Your task to perform on an android device: Do I have any events this weekend? Image 0: 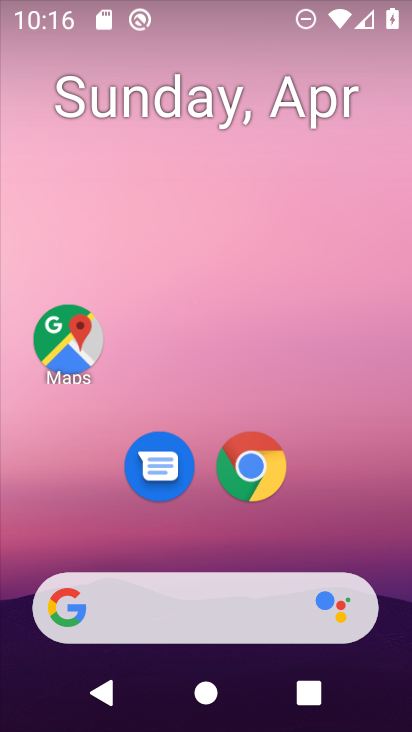
Step 0: drag from (360, 529) to (337, 76)
Your task to perform on an android device: Do I have any events this weekend? Image 1: 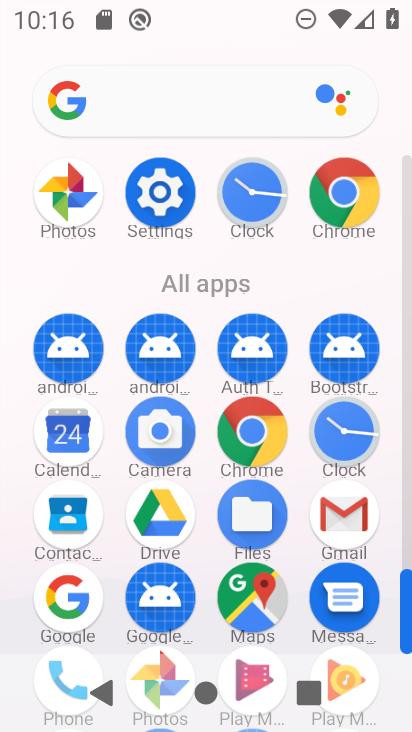
Step 1: click (78, 442)
Your task to perform on an android device: Do I have any events this weekend? Image 2: 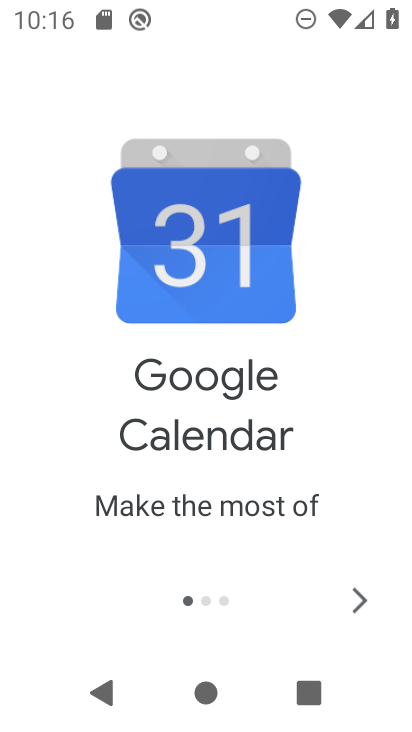
Step 2: click (354, 601)
Your task to perform on an android device: Do I have any events this weekend? Image 3: 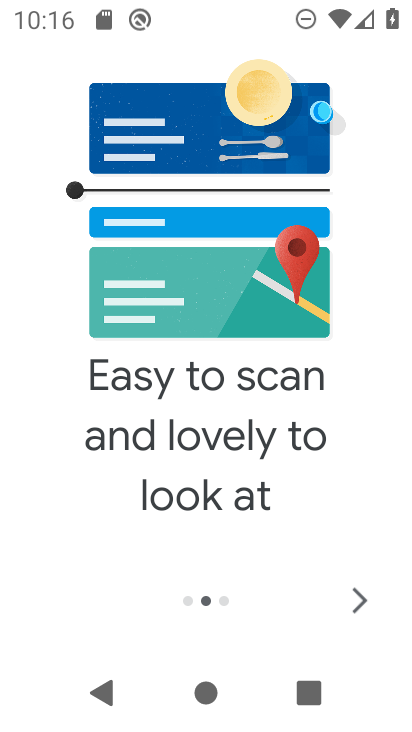
Step 3: click (358, 595)
Your task to perform on an android device: Do I have any events this weekend? Image 4: 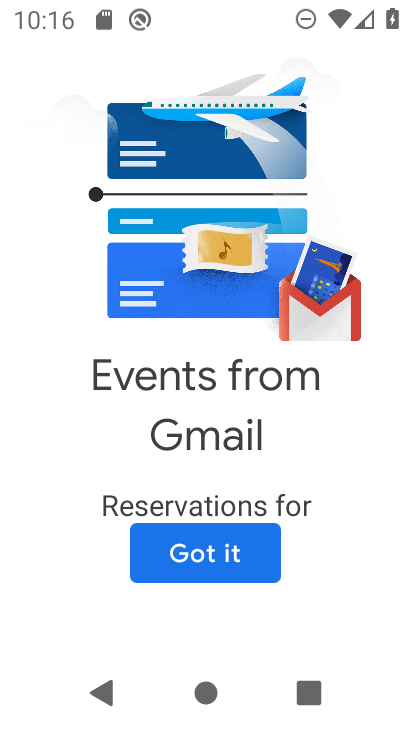
Step 4: click (216, 562)
Your task to perform on an android device: Do I have any events this weekend? Image 5: 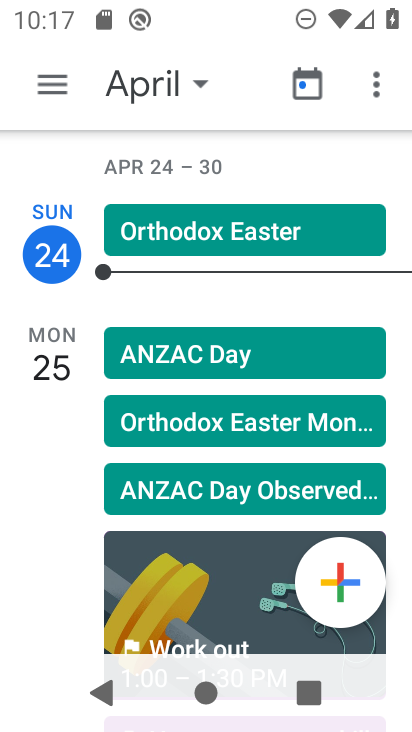
Step 5: click (204, 77)
Your task to perform on an android device: Do I have any events this weekend? Image 6: 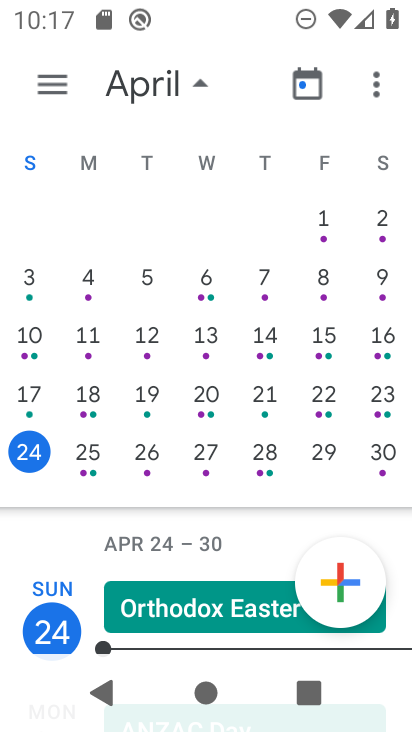
Step 6: click (390, 452)
Your task to perform on an android device: Do I have any events this weekend? Image 7: 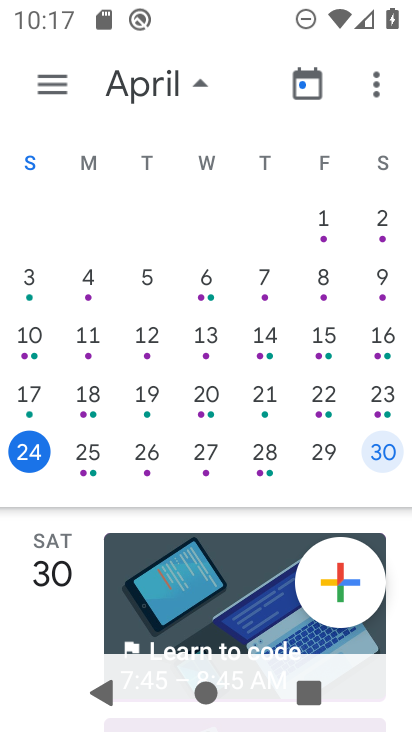
Step 7: drag from (276, 493) to (272, 79)
Your task to perform on an android device: Do I have any events this weekend? Image 8: 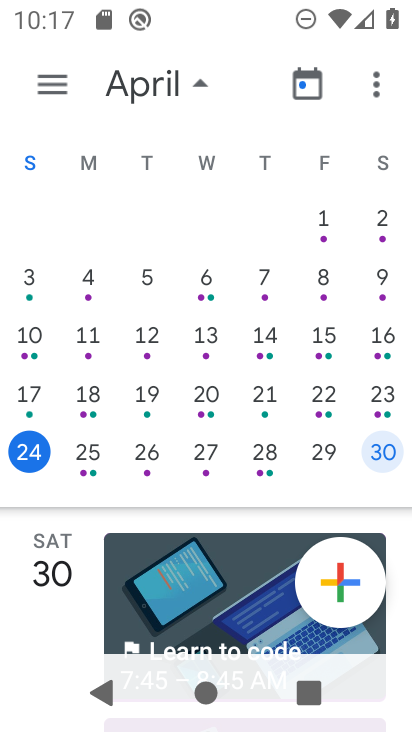
Step 8: drag from (209, 507) to (213, 202)
Your task to perform on an android device: Do I have any events this weekend? Image 9: 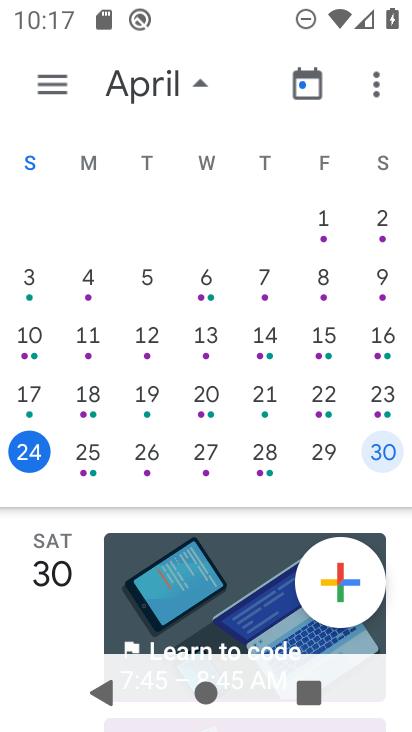
Step 9: click (181, 600)
Your task to perform on an android device: Do I have any events this weekend? Image 10: 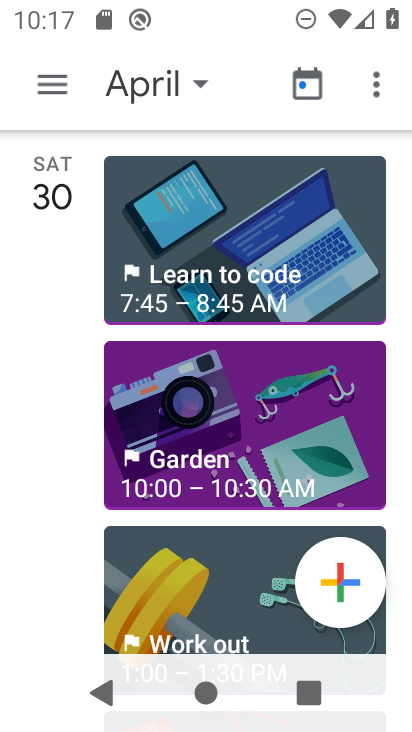
Step 10: click (229, 438)
Your task to perform on an android device: Do I have any events this weekend? Image 11: 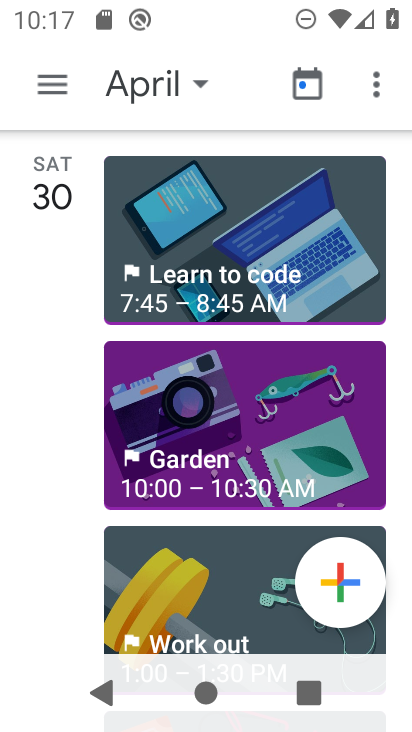
Step 11: click (238, 439)
Your task to perform on an android device: Do I have any events this weekend? Image 12: 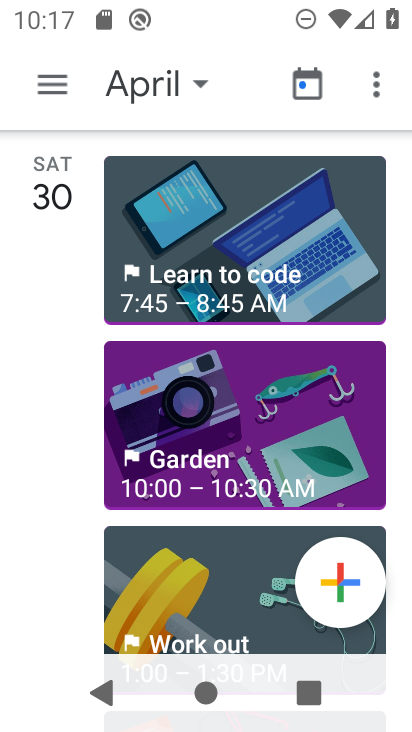
Step 12: task complete